Your task to perform on an android device: change keyboard looks Image 0: 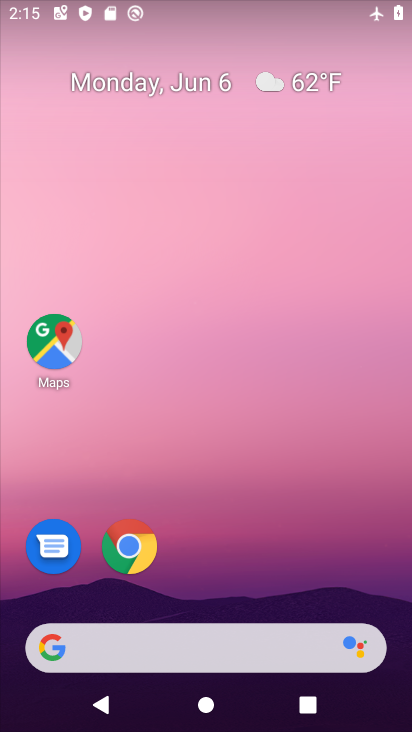
Step 0: drag from (294, 518) to (256, 167)
Your task to perform on an android device: change keyboard looks Image 1: 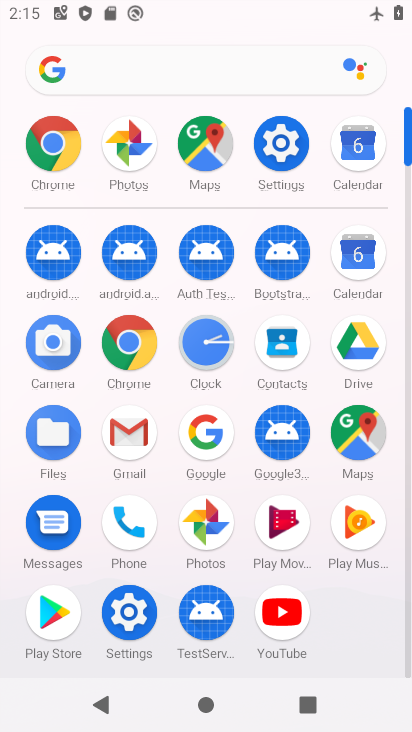
Step 1: click (272, 146)
Your task to perform on an android device: change keyboard looks Image 2: 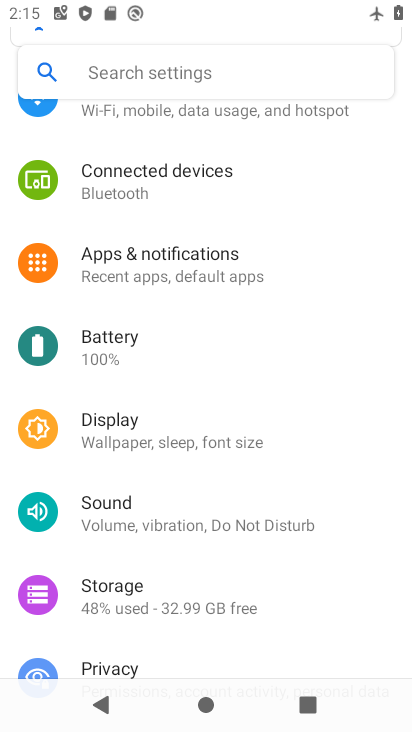
Step 2: drag from (236, 581) to (255, 174)
Your task to perform on an android device: change keyboard looks Image 3: 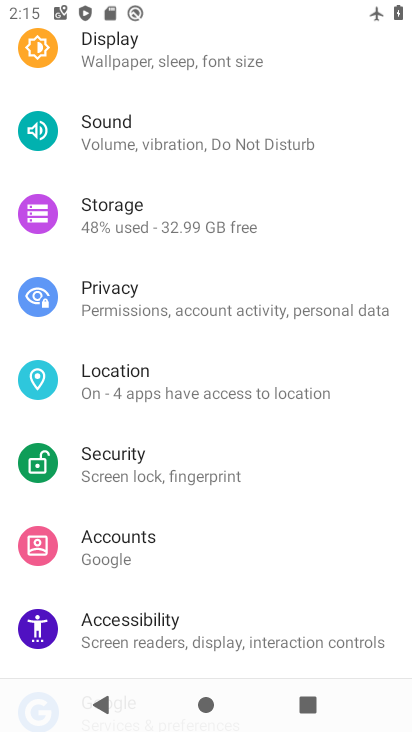
Step 3: drag from (179, 522) to (182, 200)
Your task to perform on an android device: change keyboard looks Image 4: 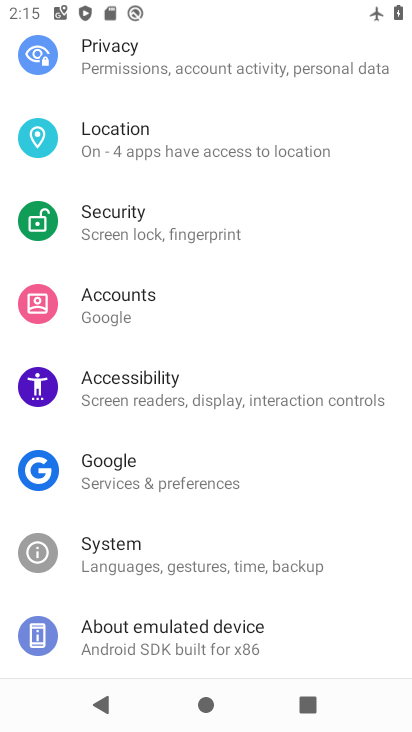
Step 4: click (173, 566)
Your task to perform on an android device: change keyboard looks Image 5: 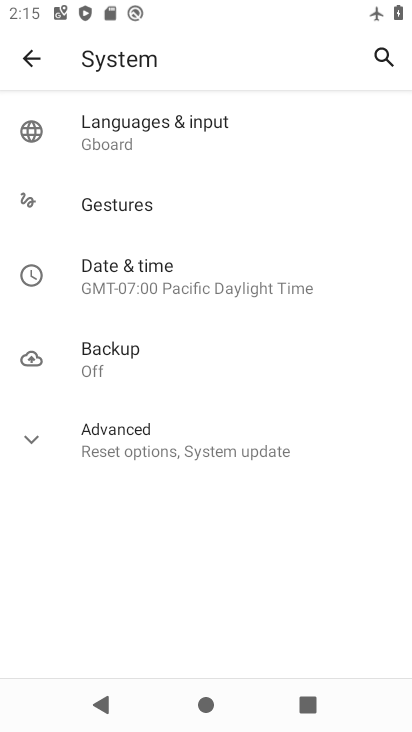
Step 5: click (137, 133)
Your task to perform on an android device: change keyboard looks Image 6: 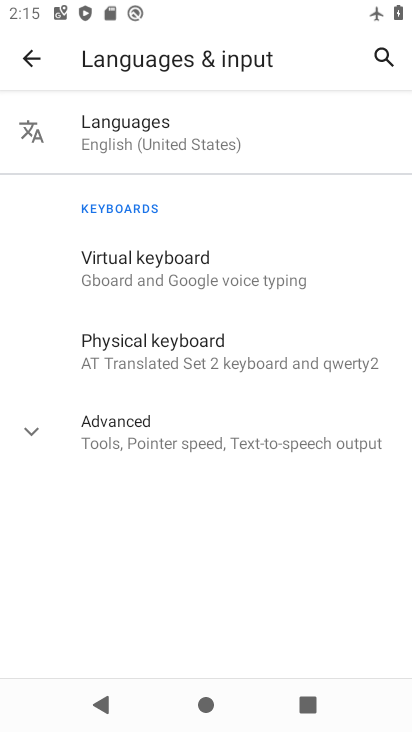
Step 6: click (180, 268)
Your task to perform on an android device: change keyboard looks Image 7: 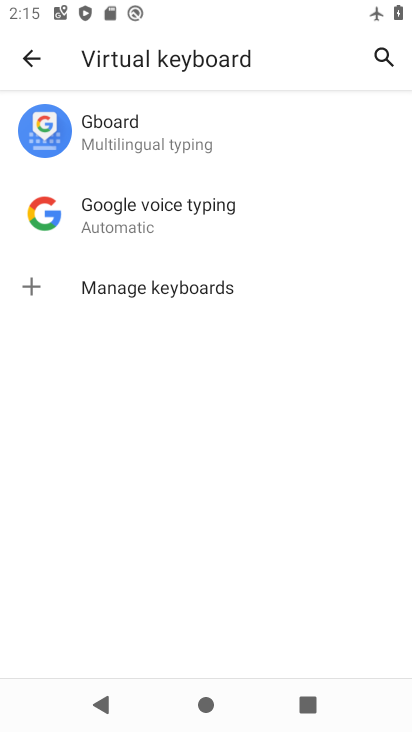
Step 7: click (212, 150)
Your task to perform on an android device: change keyboard looks Image 8: 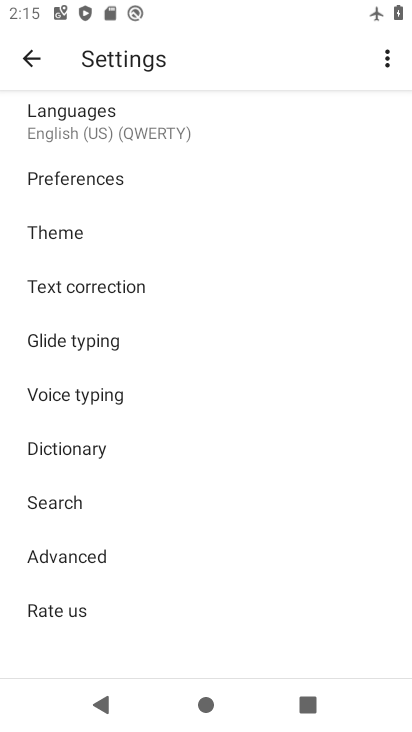
Step 8: click (79, 233)
Your task to perform on an android device: change keyboard looks Image 9: 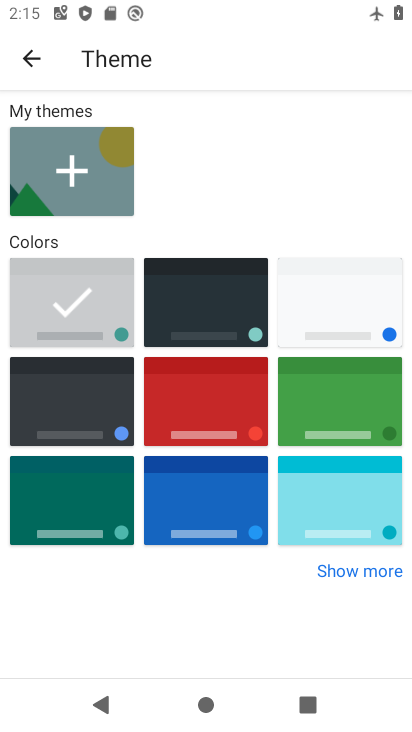
Step 9: click (359, 296)
Your task to perform on an android device: change keyboard looks Image 10: 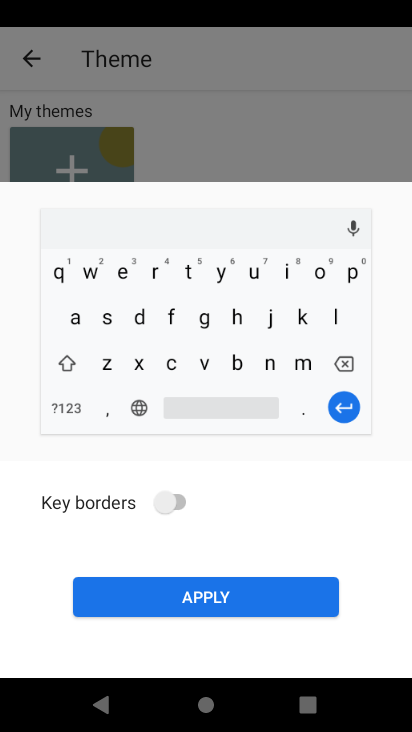
Step 10: click (215, 615)
Your task to perform on an android device: change keyboard looks Image 11: 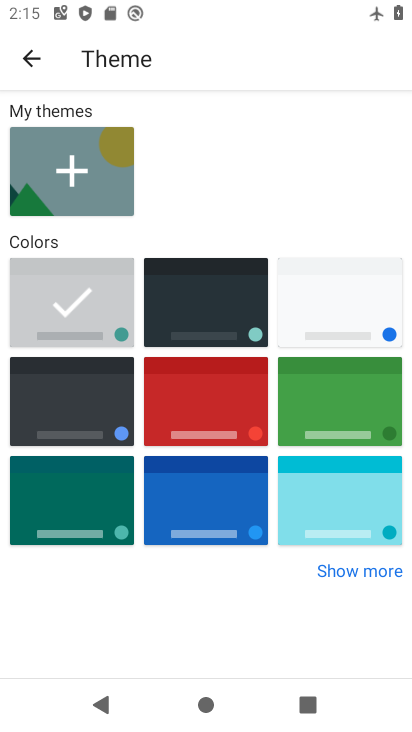
Step 11: click (215, 608)
Your task to perform on an android device: change keyboard looks Image 12: 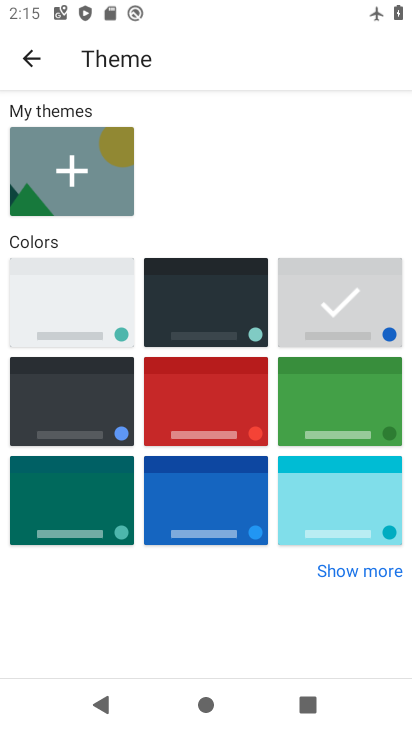
Step 12: task complete